Your task to perform on an android device: Open the Google play store app Image 0: 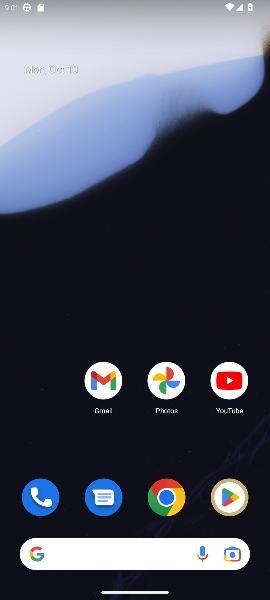
Step 0: drag from (93, 446) to (115, 181)
Your task to perform on an android device: Open the Google play store app Image 1: 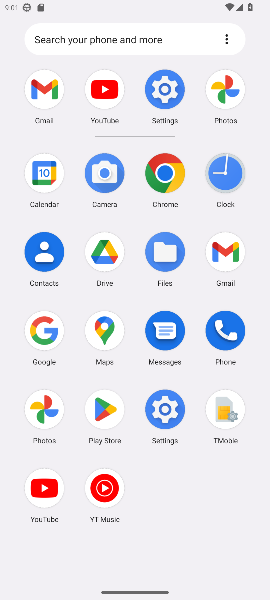
Step 1: click (34, 313)
Your task to perform on an android device: Open the Google play store app Image 2: 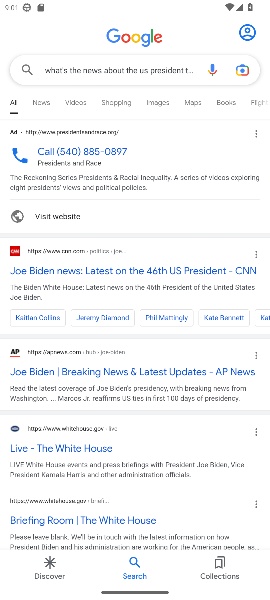
Step 2: click (116, 64)
Your task to perform on an android device: Open the Google play store app Image 3: 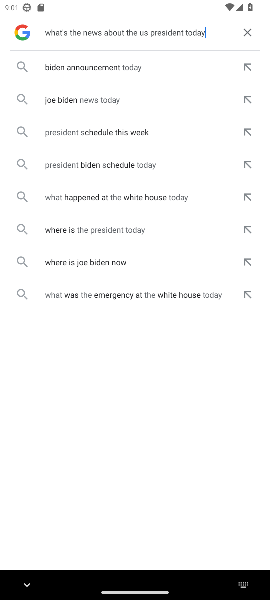
Step 3: click (246, 26)
Your task to perform on an android device: Open the Google play store app Image 4: 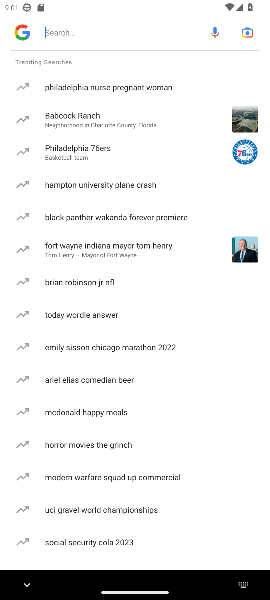
Step 4: click (116, 11)
Your task to perform on an android device: Open the Google play store app Image 5: 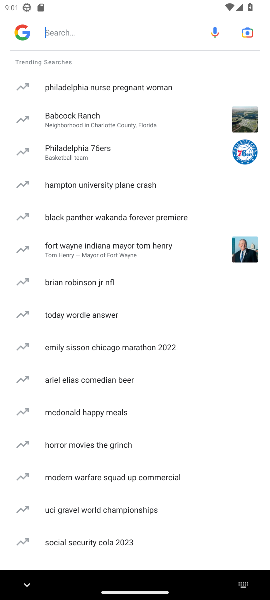
Step 5: type "Open the Google play store app "
Your task to perform on an android device: Open the Google play store app Image 6: 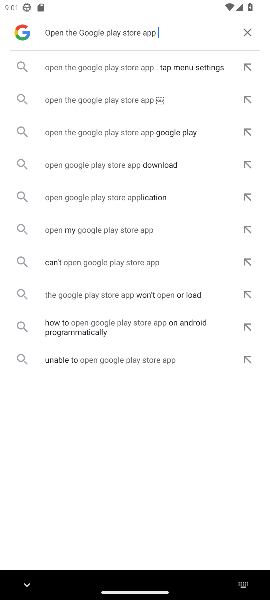
Step 6: press home button
Your task to perform on an android device: Open the Google play store app Image 7: 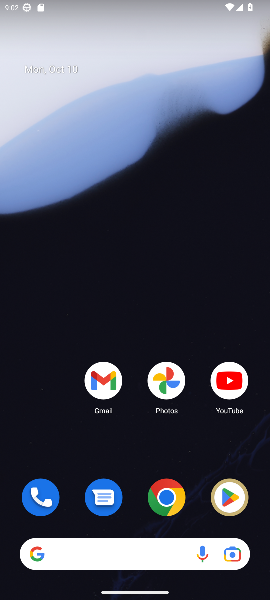
Step 7: click (223, 496)
Your task to perform on an android device: Open the Google play store app Image 8: 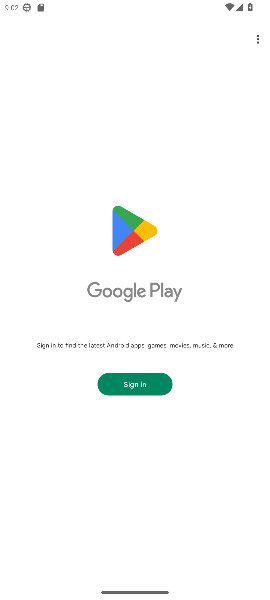
Step 8: click (130, 377)
Your task to perform on an android device: Open the Google play store app Image 9: 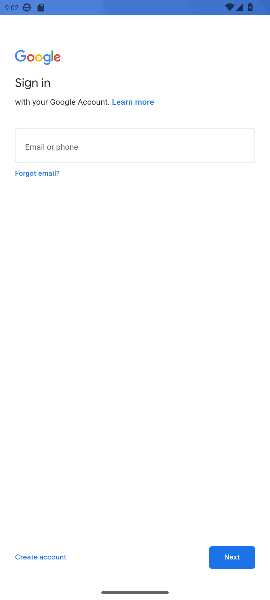
Step 9: task complete